Your task to perform on an android device: Go to Amazon Image 0: 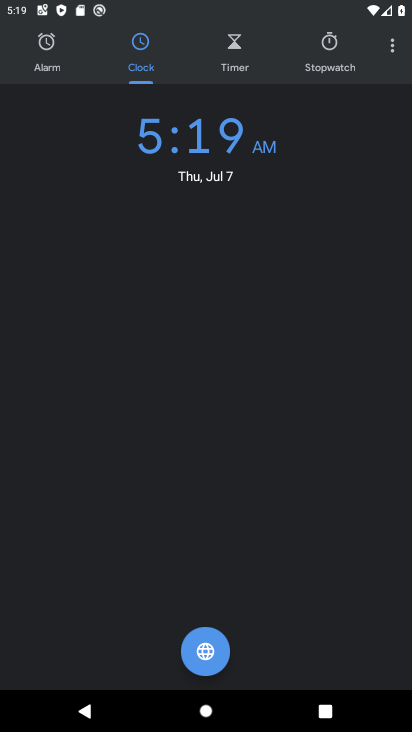
Step 0: press back button
Your task to perform on an android device: Go to Amazon Image 1: 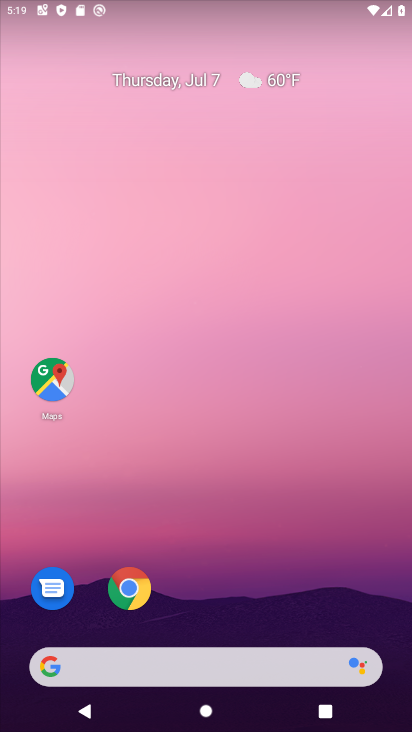
Step 1: click (130, 593)
Your task to perform on an android device: Go to Amazon Image 2: 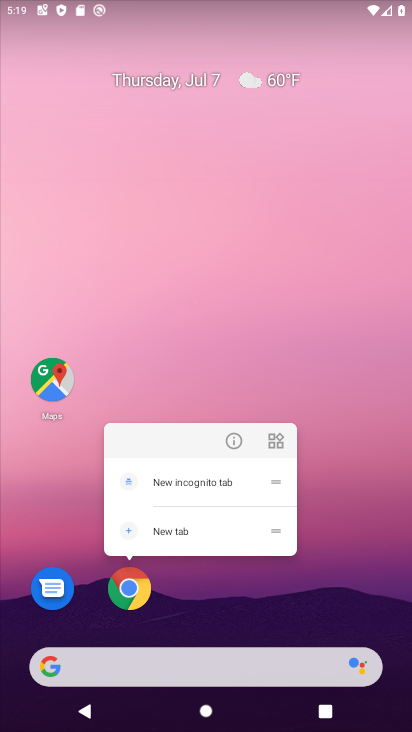
Step 2: click (130, 583)
Your task to perform on an android device: Go to Amazon Image 3: 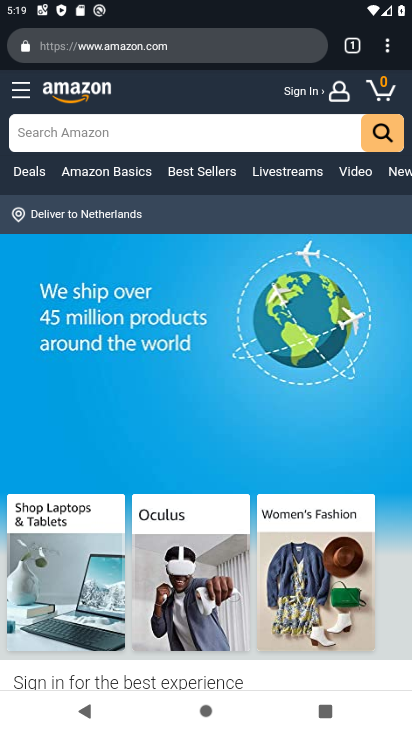
Step 3: task complete